Your task to perform on an android device: turn pop-ups on in chrome Image 0: 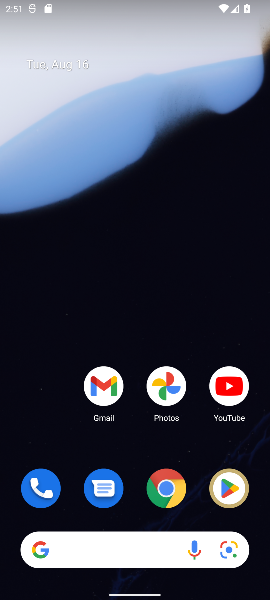
Step 0: drag from (131, 302) to (166, 33)
Your task to perform on an android device: turn pop-ups on in chrome Image 1: 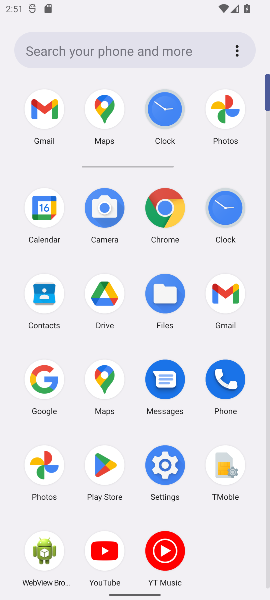
Step 1: task complete